Your task to perform on an android device: Open Amazon Image 0: 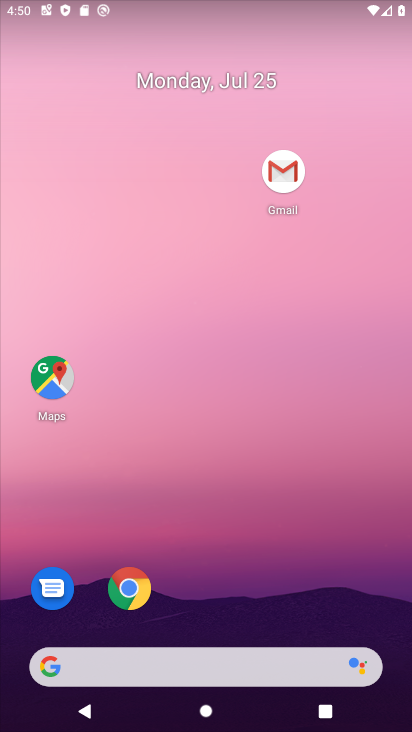
Step 0: drag from (271, 567) to (268, 44)
Your task to perform on an android device: Open Amazon Image 1: 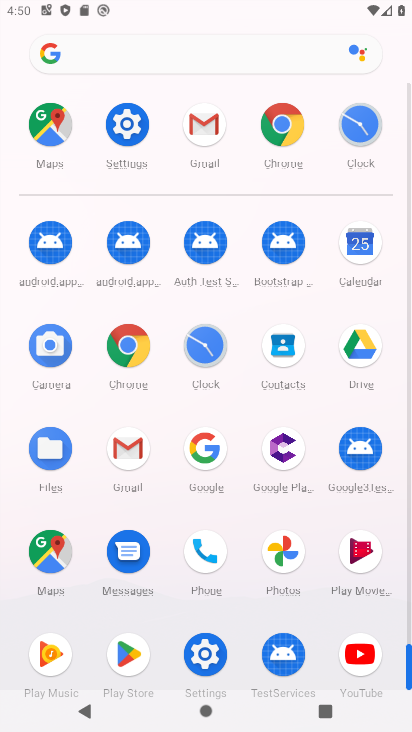
Step 1: click (124, 342)
Your task to perform on an android device: Open Amazon Image 2: 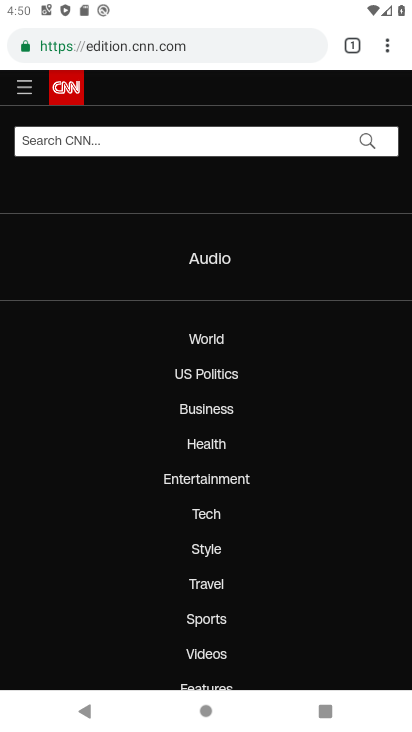
Step 2: click (257, 47)
Your task to perform on an android device: Open Amazon Image 3: 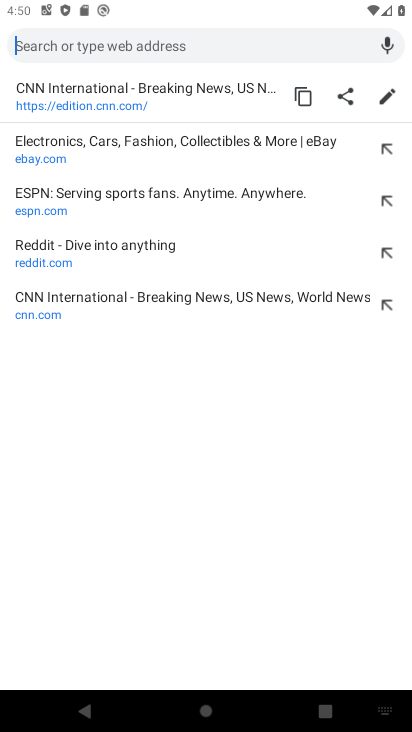
Step 3: type "m"
Your task to perform on an android device: Open Amazon Image 4: 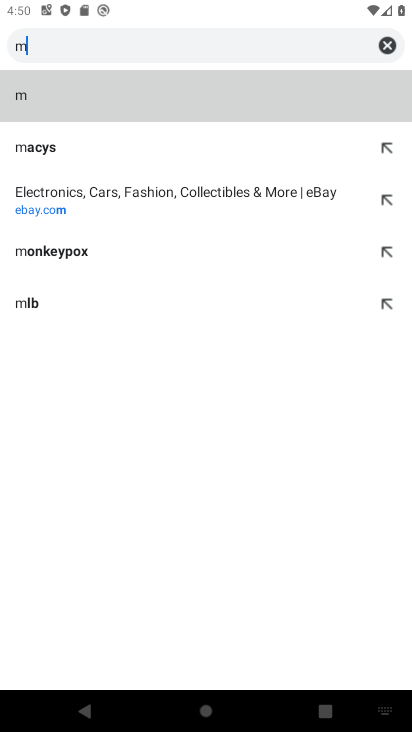
Step 4: type "azon"
Your task to perform on an android device: Open Amazon Image 5: 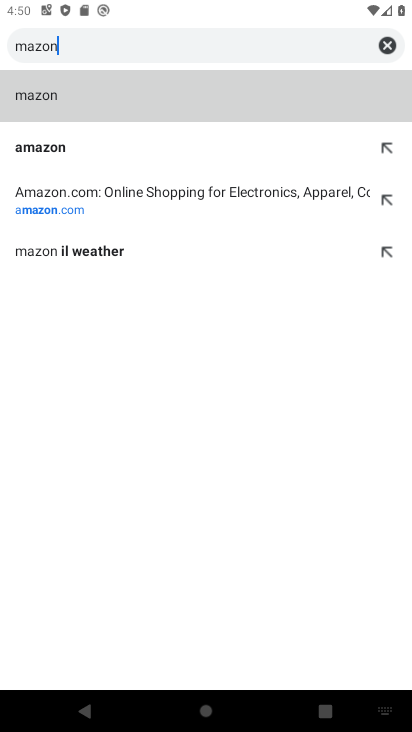
Step 5: click (39, 204)
Your task to perform on an android device: Open Amazon Image 6: 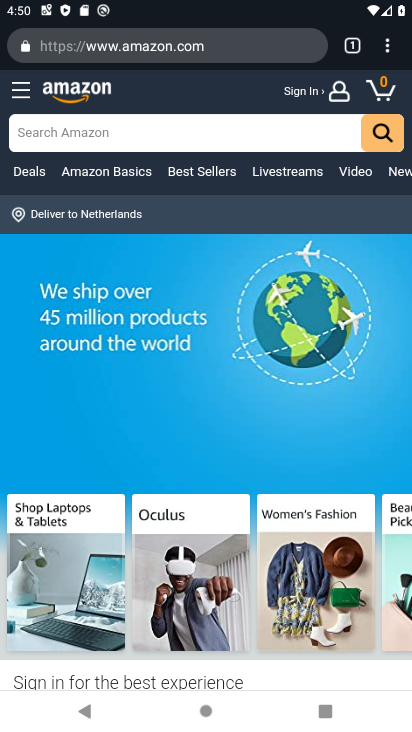
Step 6: task complete